Your task to perform on an android device: turn off sleep mode Image 0: 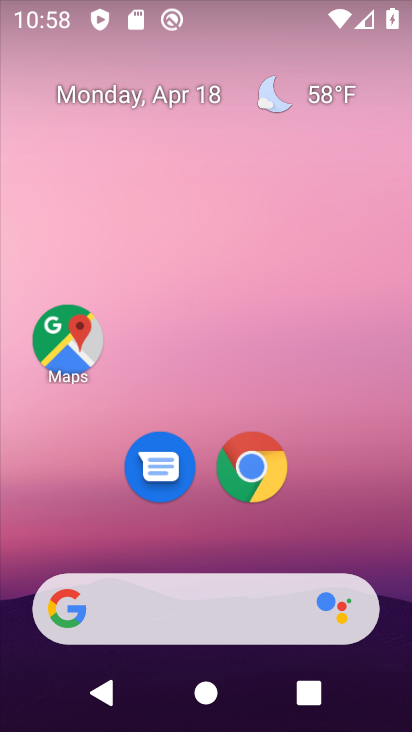
Step 0: drag from (215, 544) to (196, 67)
Your task to perform on an android device: turn off sleep mode Image 1: 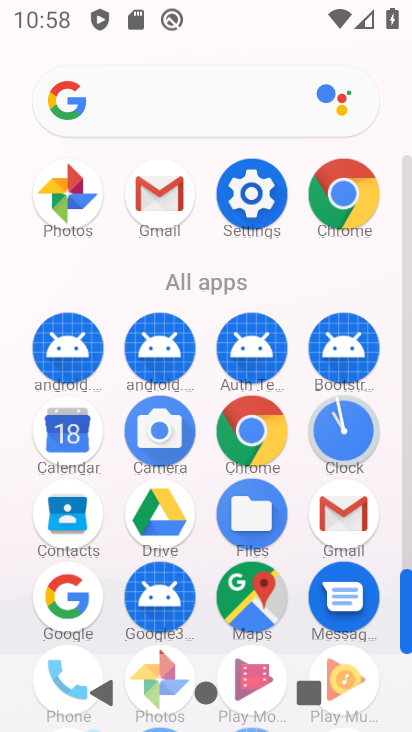
Step 1: click (249, 198)
Your task to perform on an android device: turn off sleep mode Image 2: 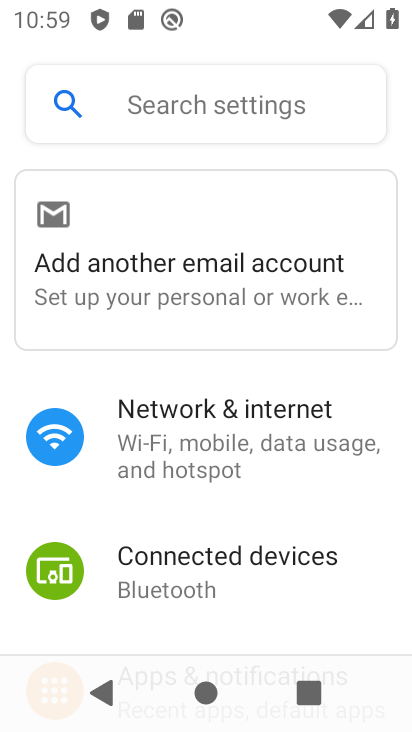
Step 2: drag from (254, 628) to (298, 280)
Your task to perform on an android device: turn off sleep mode Image 3: 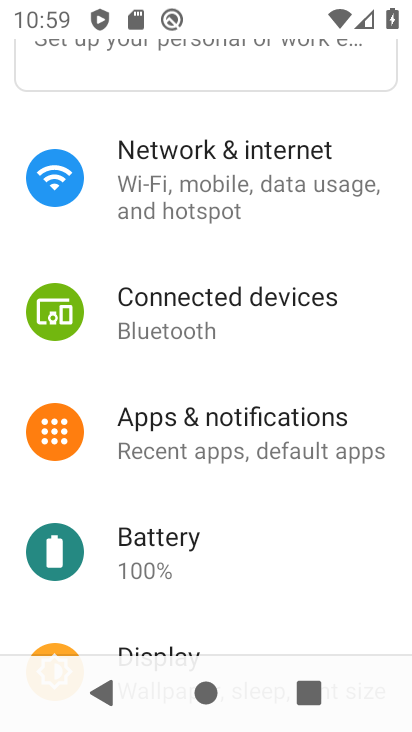
Step 3: drag from (230, 583) to (248, 304)
Your task to perform on an android device: turn off sleep mode Image 4: 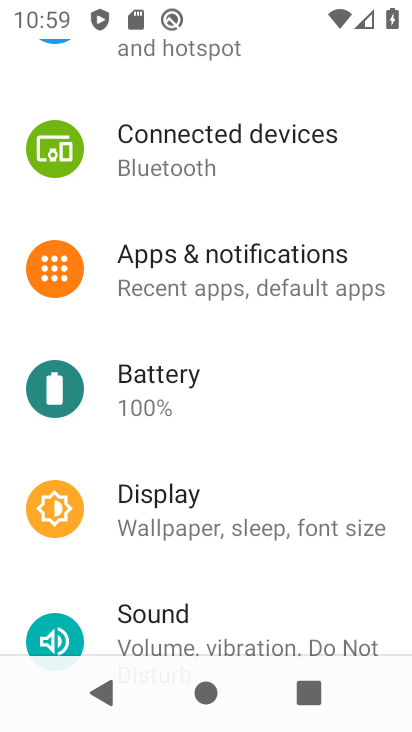
Step 4: click (219, 493)
Your task to perform on an android device: turn off sleep mode Image 5: 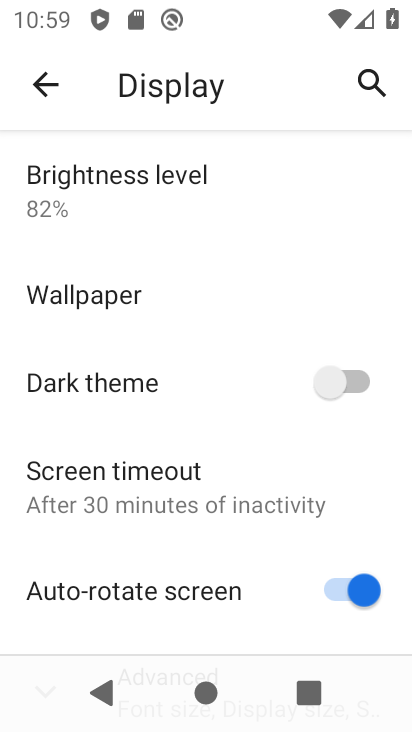
Step 5: task complete